Your task to perform on an android device: Open Android settings Image 0: 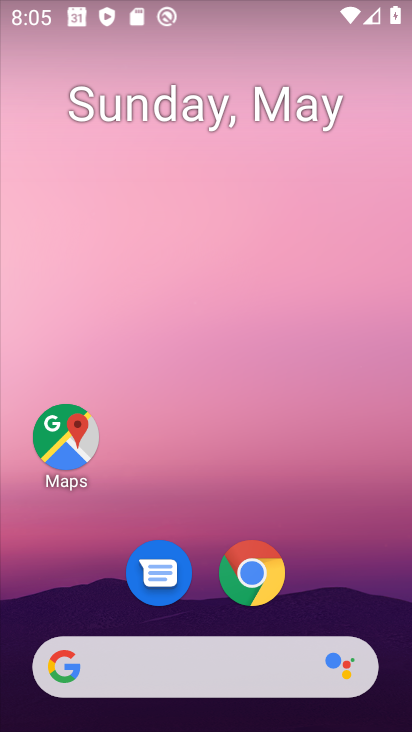
Step 0: drag from (345, 600) to (297, 286)
Your task to perform on an android device: Open Android settings Image 1: 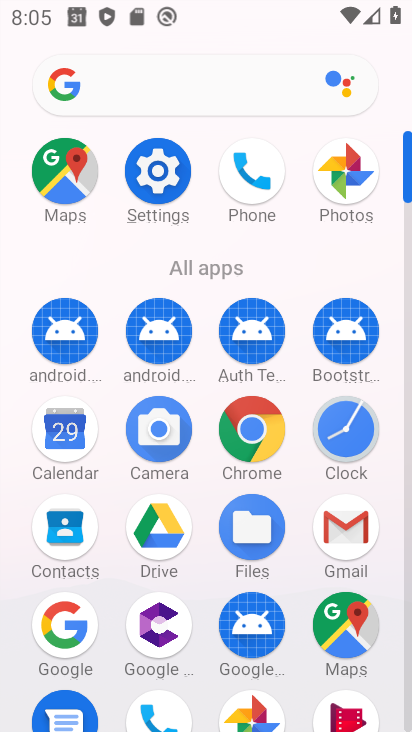
Step 1: click (176, 195)
Your task to perform on an android device: Open Android settings Image 2: 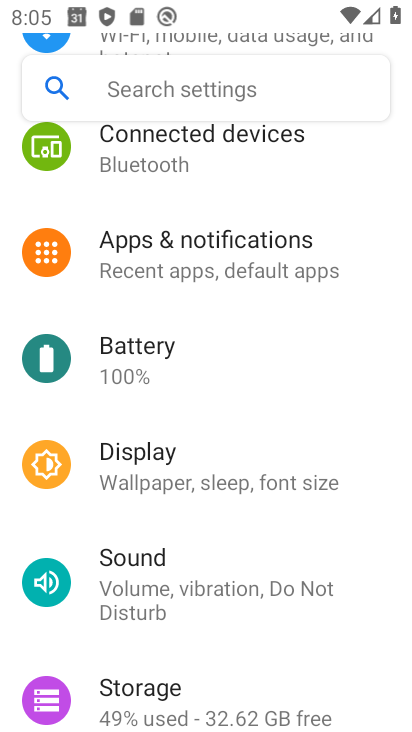
Step 2: task complete